Your task to perform on an android device: check data usage Image 0: 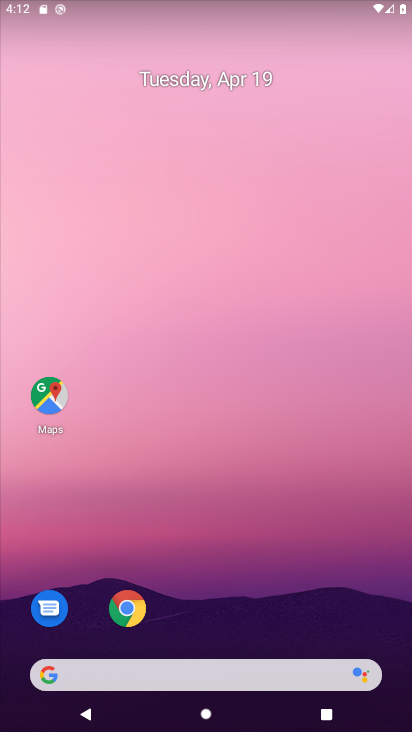
Step 0: drag from (274, 525) to (285, 119)
Your task to perform on an android device: check data usage Image 1: 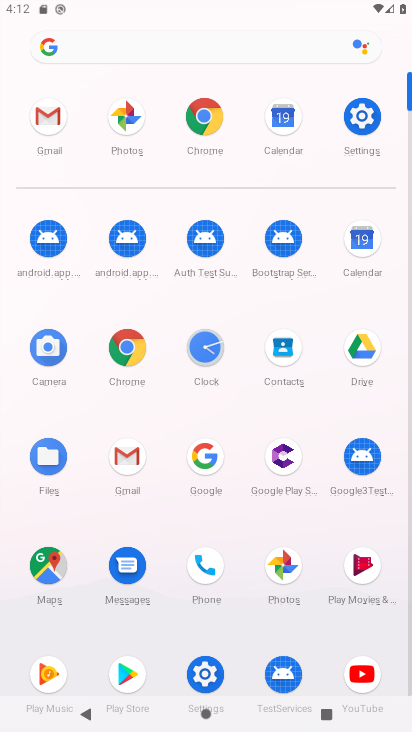
Step 1: click (209, 671)
Your task to perform on an android device: check data usage Image 2: 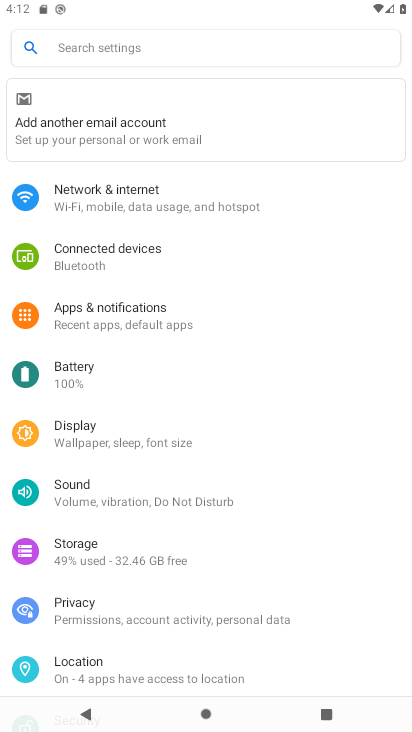
Step 2: click (173, 200)
Your task to perform on an android device: check data usage Image 3: 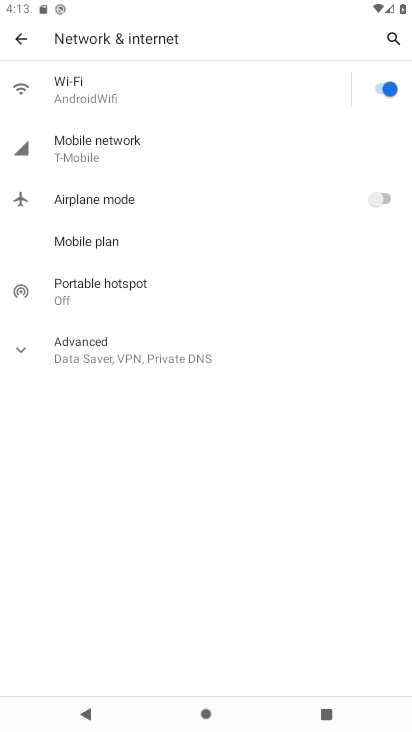
Step 3: click (138, 147)
Your task to perform on an android device: check data usage Image 4: 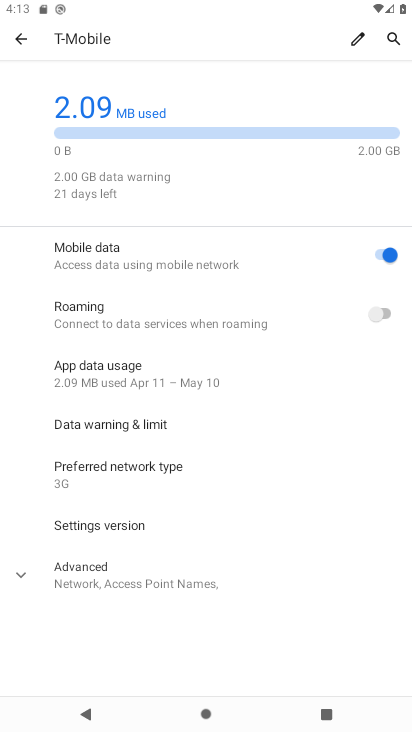
Step 4: task complete